Your task to perform on an android device: Search for sushi restaurants on Maps Image 0: 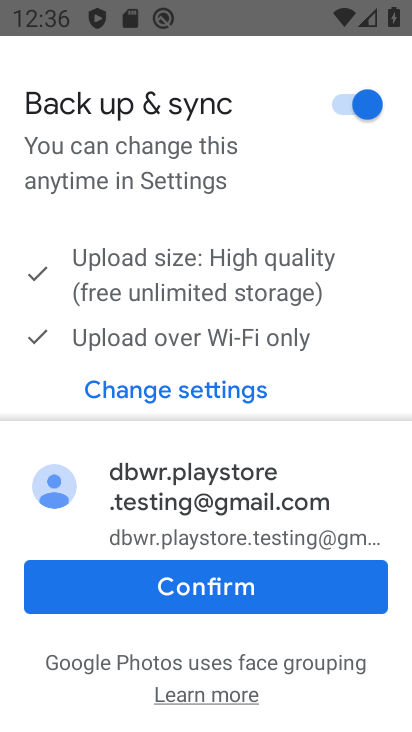
Step 0: press home button
Your task to perform on an android device: Search for sushi restaurants on Maps Image 1: 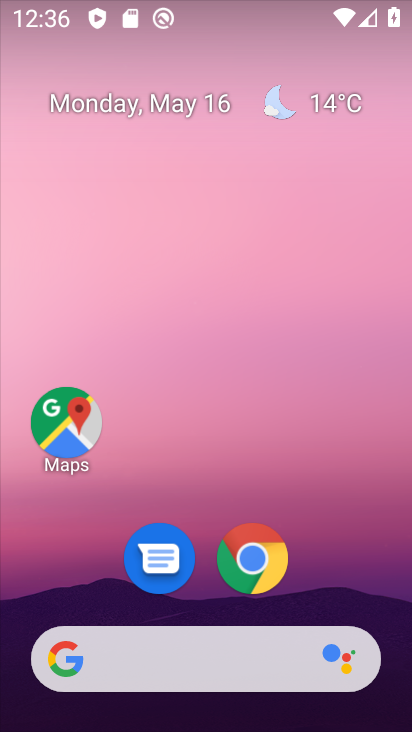
Step 1: click (81, 411)
Your task to perform on an android device: Search for sushi restaurants on Maps Image 2: 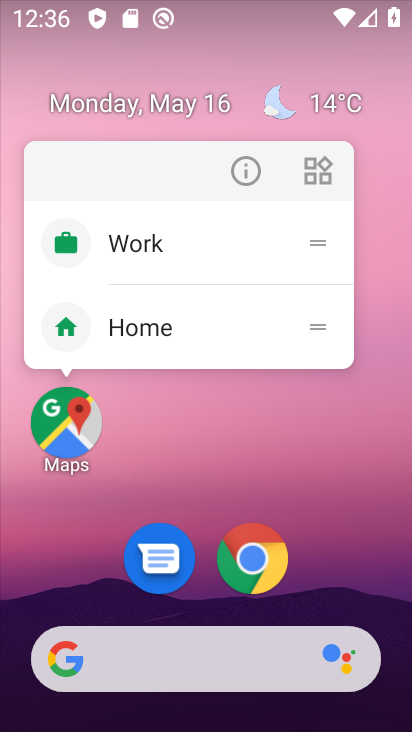
Step 2: click (90, 418)
Your task to perform on an android device: Search for sushi restaurants on Maps Image 3: 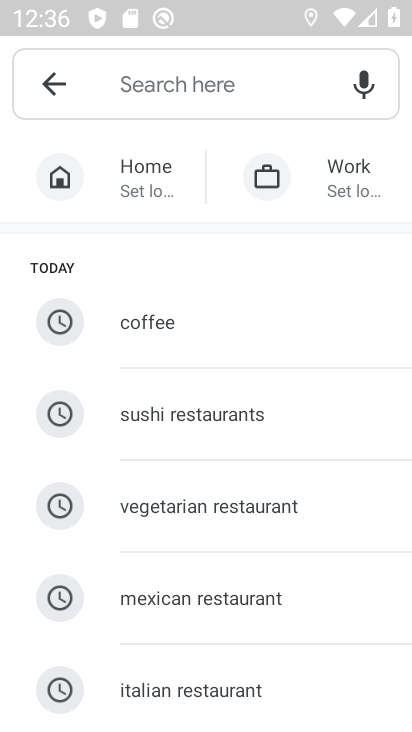
Step 3: drag from (318, 672) to (337, 255)
Your task to perform on an android device: Search for sushi restaurants on Maps Image 4: 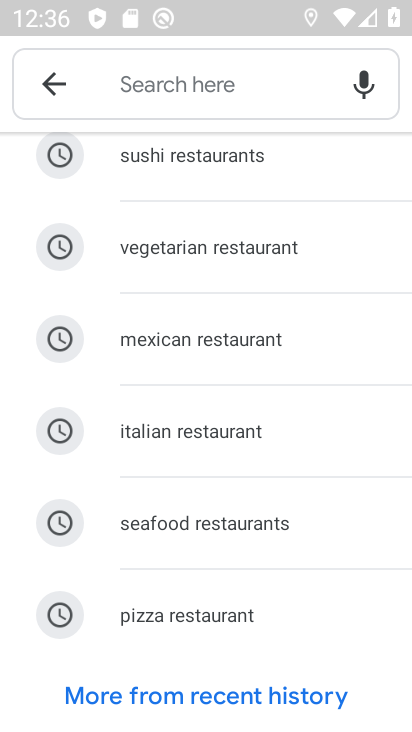
Step 4: click (222, 151)
Your task to perform on an android device: Search for sushi restaurants on Maps Image 5: 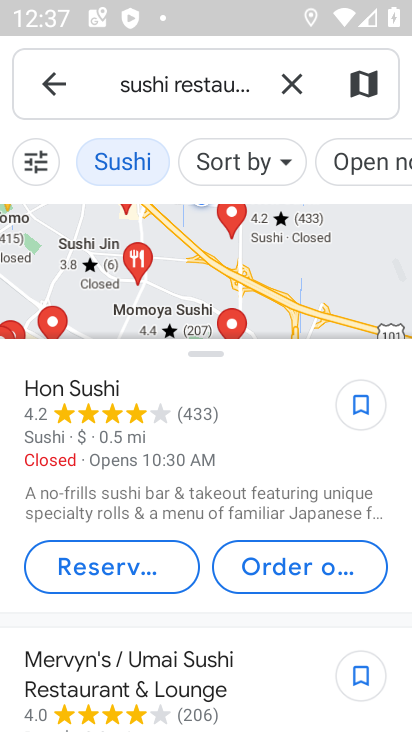
Step 5: task complete